Your task to perform on an android device: find which apps use the phone's location Image 0: 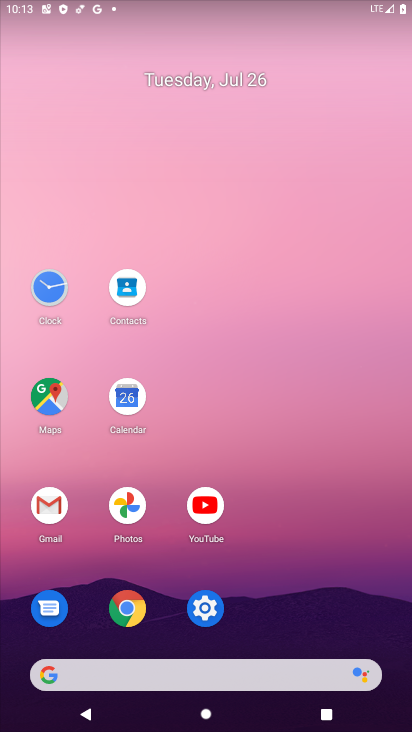
Step 0: click (199, 613)
Your task to perform on an android device: find which apps use the phone's location Image 1: 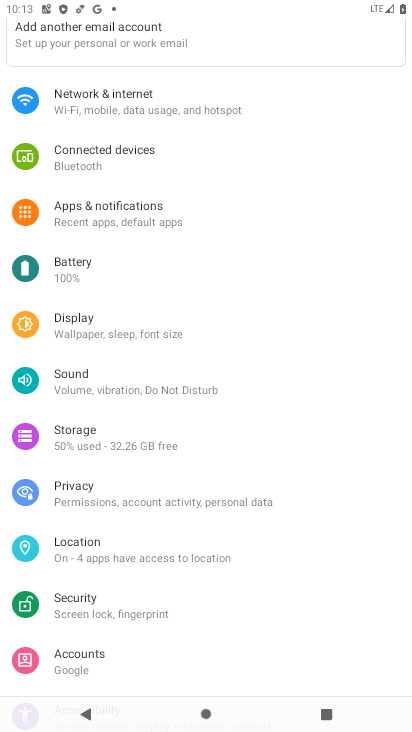
Step 1: click (81, 540)
Your task to perform on an android device: find which apps use the phone's location Image 2: 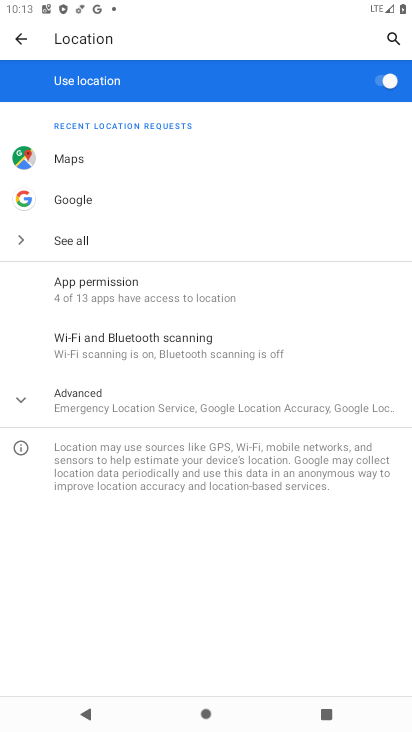
Step 2: click (68, 237)
Your task to perform on an android device: find which apps use the phone's location Image 3: 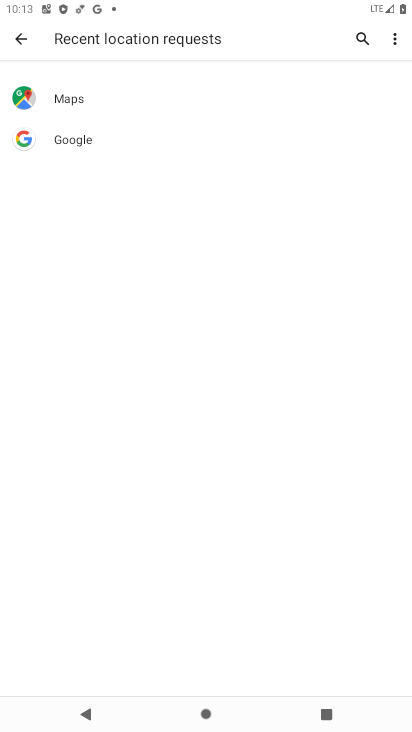
Step 3: task complete